Your task to perform on an android device: toggle priority inbox in the gmail app Image 0: 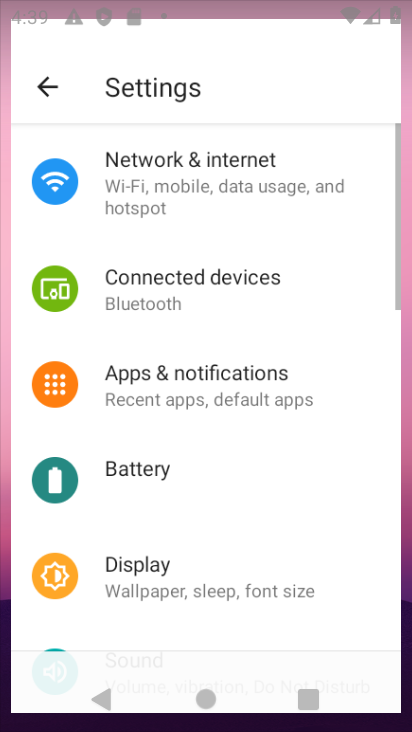
Step 0: drag from (286, 404) to (288, 114)
Your task to perform on an android device: toggle priority inbox in the gmail app Image 1: 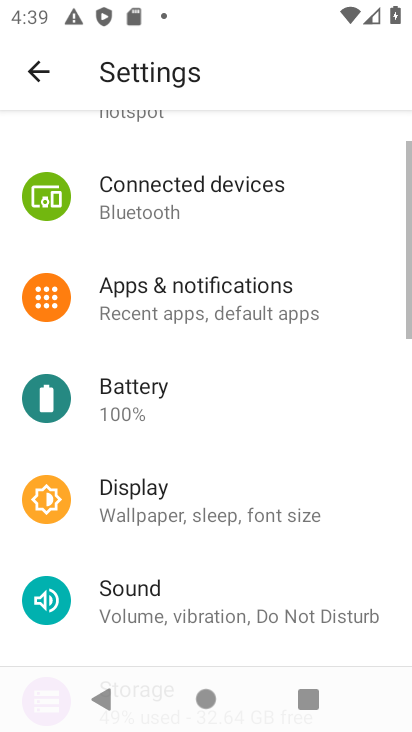
Step 1: press home button
Your task to perform on an android device: toggle priority inbox in the gmail app Image 2: 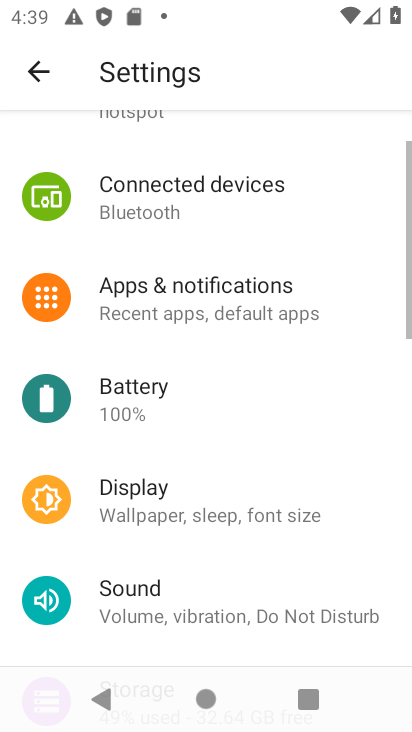
Step 2: press home button
Your task to perform on an android device: toggle priority inbox in the gmail app Image 3: 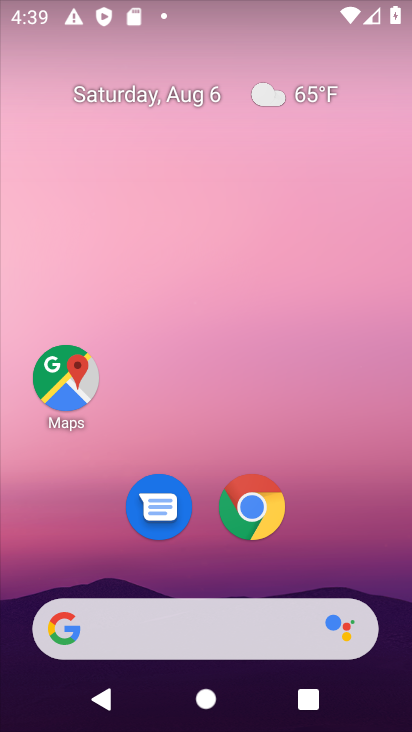
Step 3: drag from (250, 434) to (264, 159)
Your task to perform on an android device: toggle priority inbox in the gmail app Image 4: 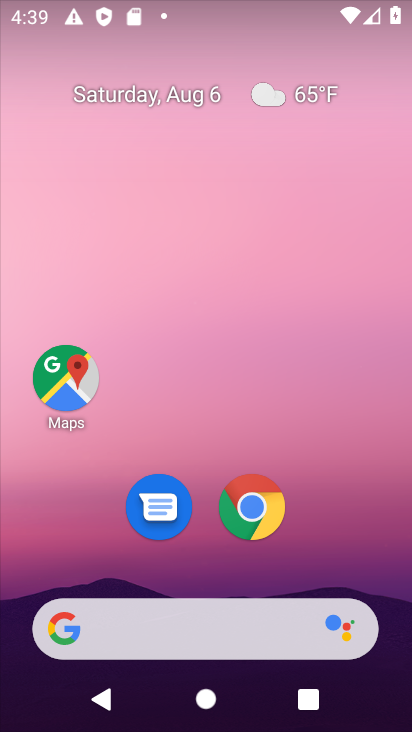
Step 4: drag from (292, 436) to (300, 98)
Your task to perform on an android device: toggle priority inbox in the gmail app Image 5: 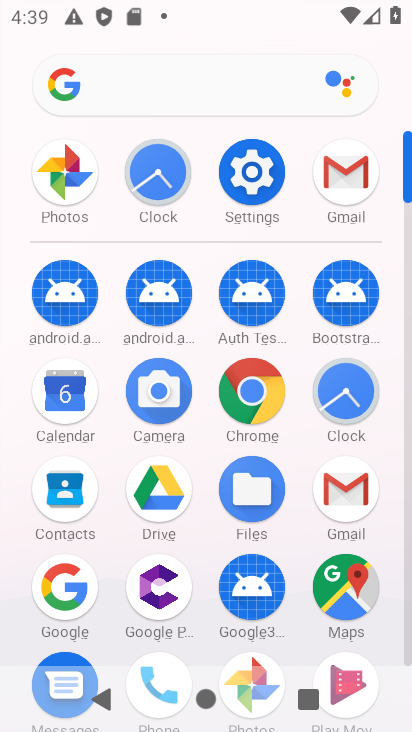
Step 5: click (346, 183)
Your task to perform on an android device: toggle priority inbox in the gmail app Image 6: 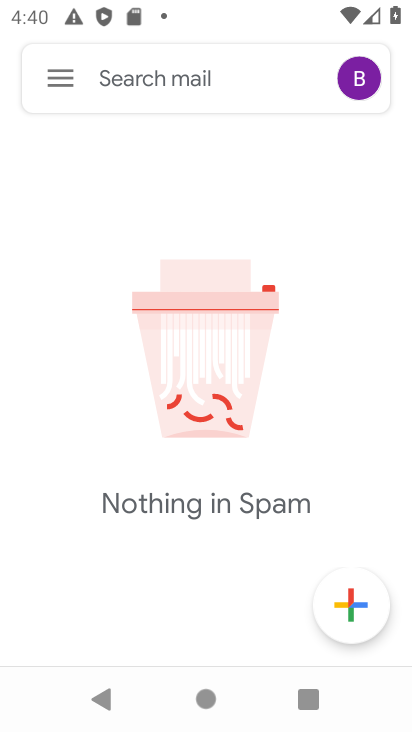
Step 6: task complete